Your task to perform on an android device: turn off improve location accuracy Image 0: 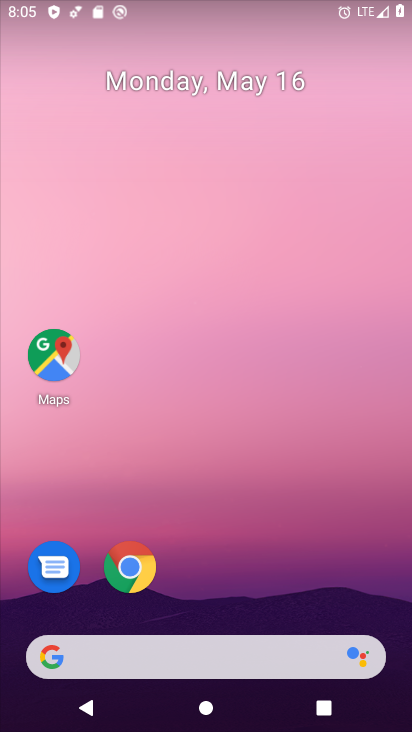
Step 0: drag from (178, 623) to (269, 115)
Your task to perform on an android device: turn off improve location accuracy Image 1: 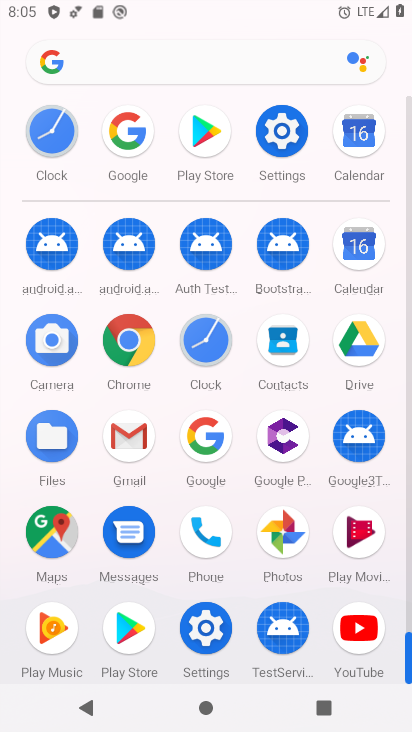
Step 1: click (269, 141)
Your task to perform on an android device: turn off improve location accuracy Image 2: 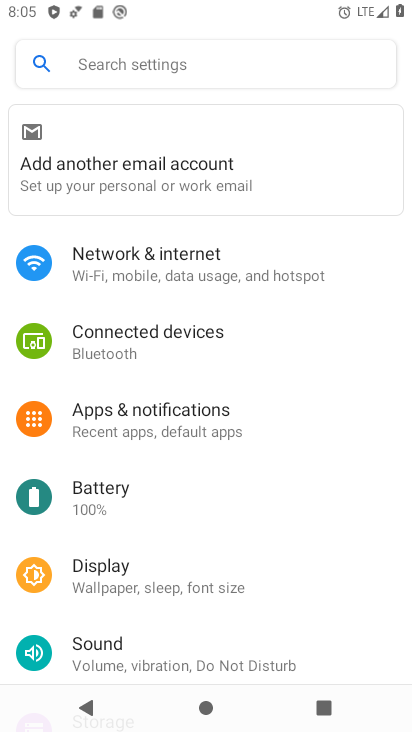
Step 2: drag from (120, 654) to (121, 250)
Your task to perform on an android device: turn off improve location accuracy Image 3: 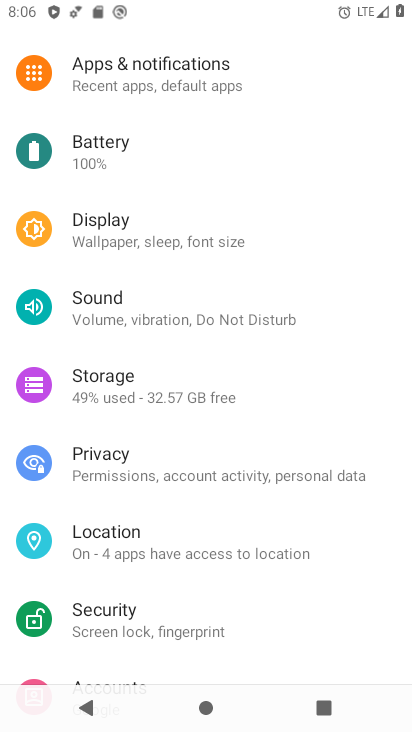
Step 3: click (89, 541)
Your task to perform on an android device: turn off improve location accuracy Image 4: 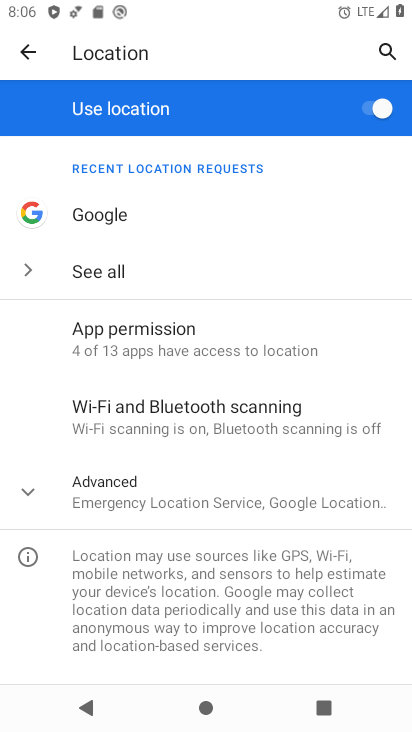
Step 4: click (86, 499)
Your task to perform on an android device: turn off improve location accuracy Image 5: 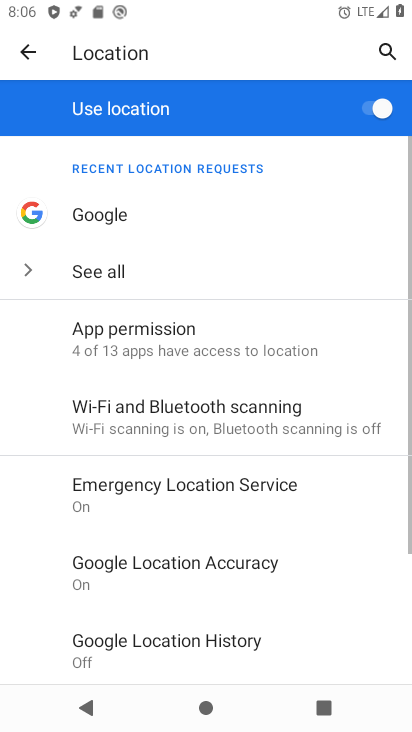
Step 5: drag from (192, 606) to (192, 282)
Your task to perform on an android device: turn off improve location accuracy Image 6: 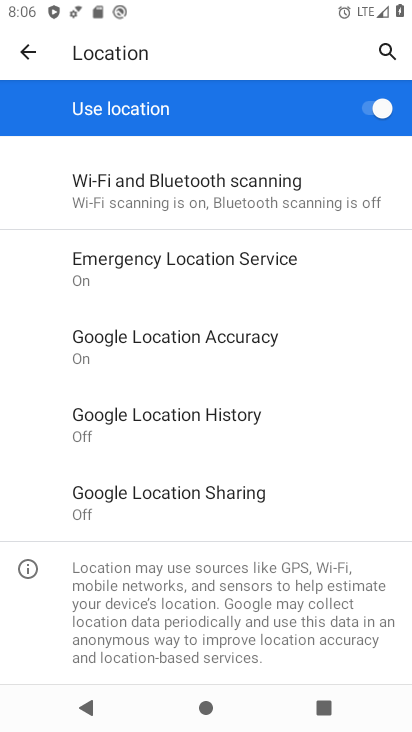
Step 6: click (146, 348)
Your task to perform on an android device: turn off improve location accuracy Image 7: 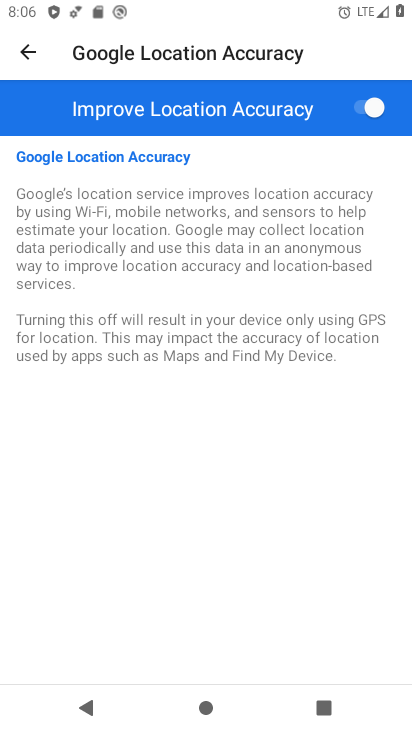
Step 7: click (361, 107)
Your task to perform on an android device: turn off improve location accuracy Image 8: 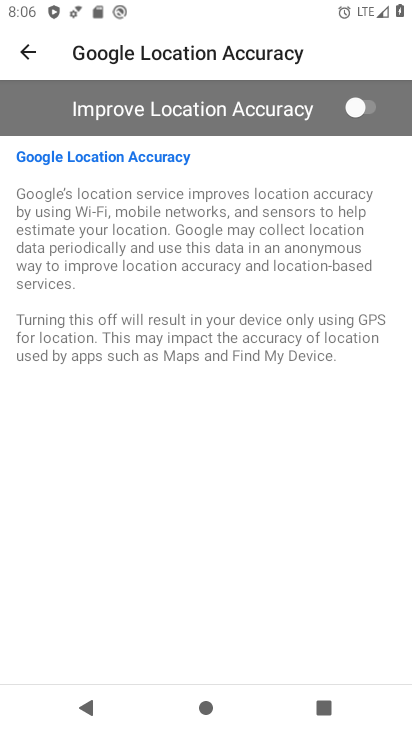
Step 8: task complete